Your task to perform on an android device: Open location settings Image 0: 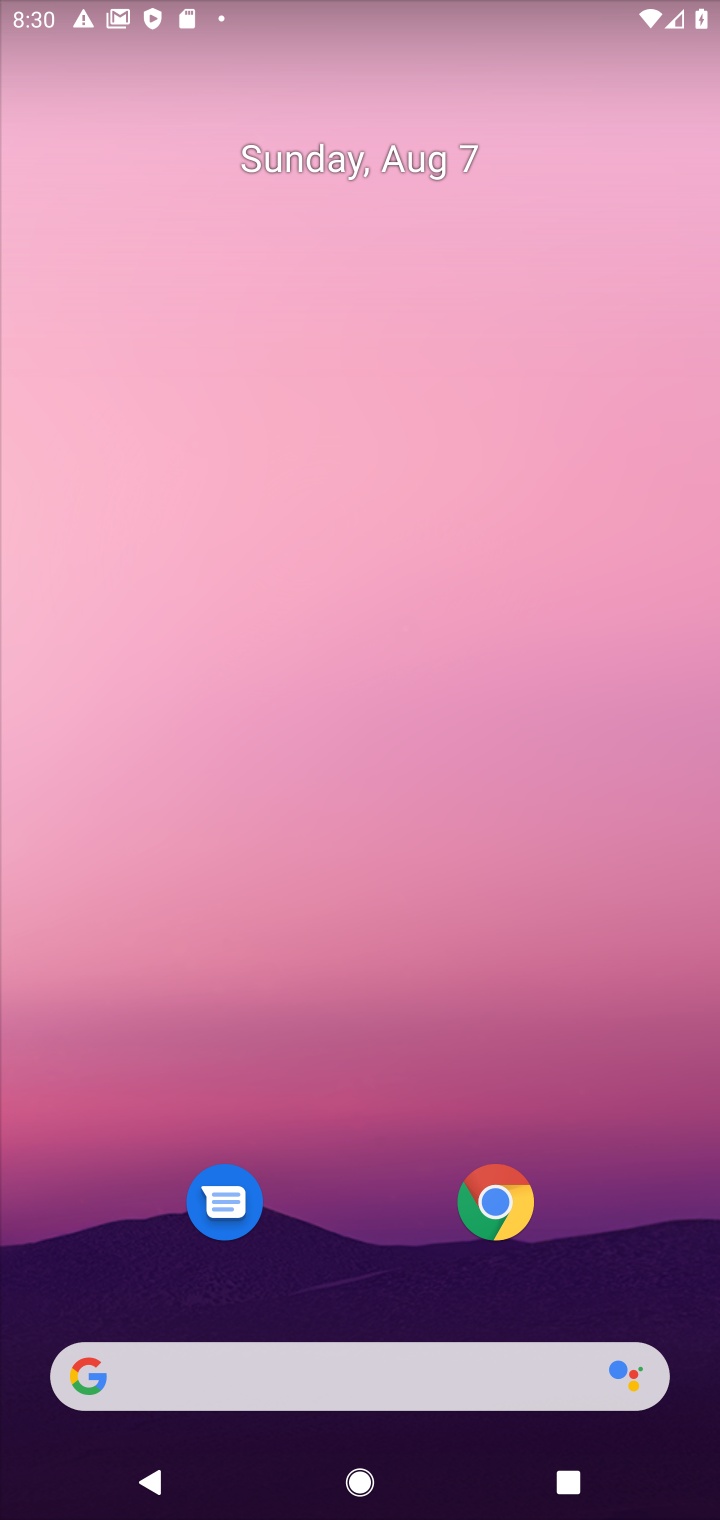
Step 0: press home button
Your task to perform on an android device: Open location settings Image 1: 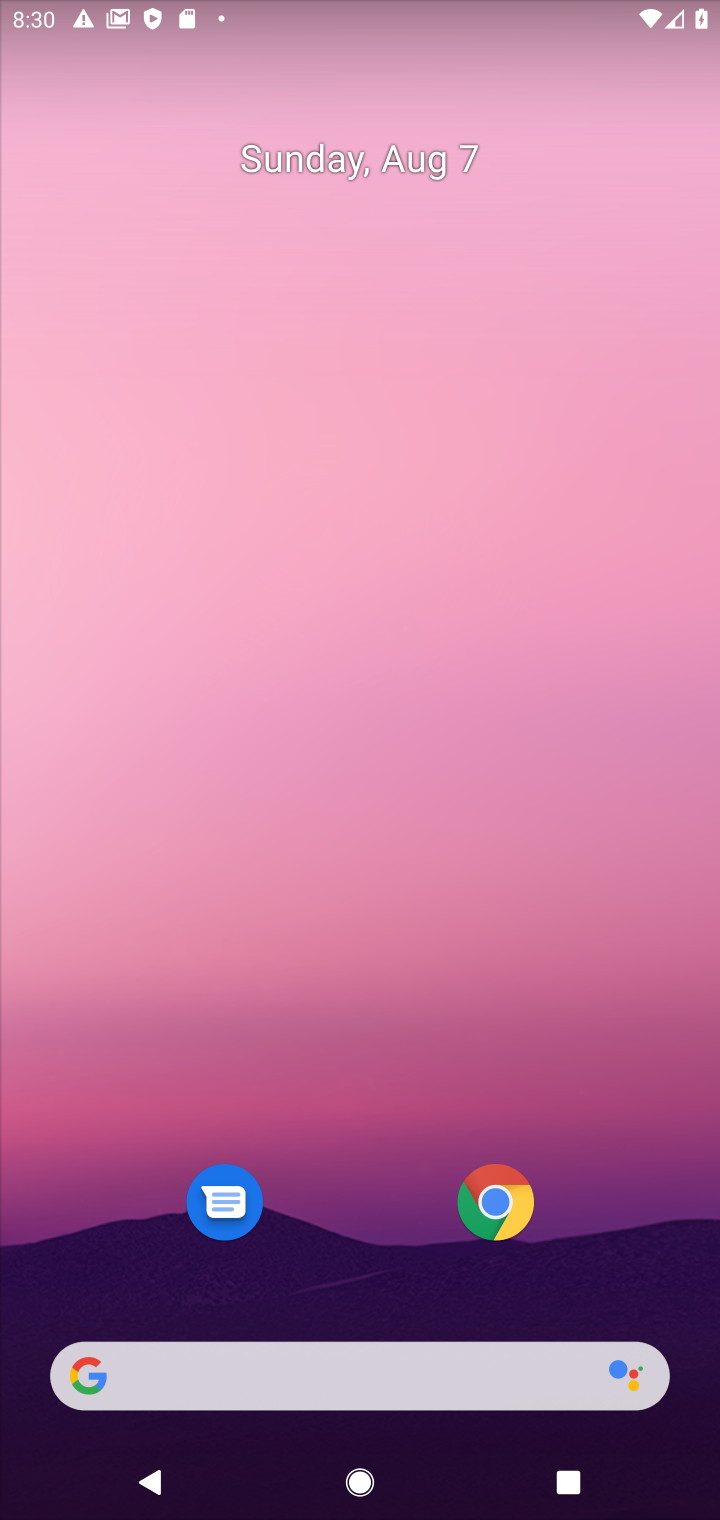
Step 1: drag from (377, 1167) to (377, 113)
Your task to perform on an android device: Open location settings Image 2: 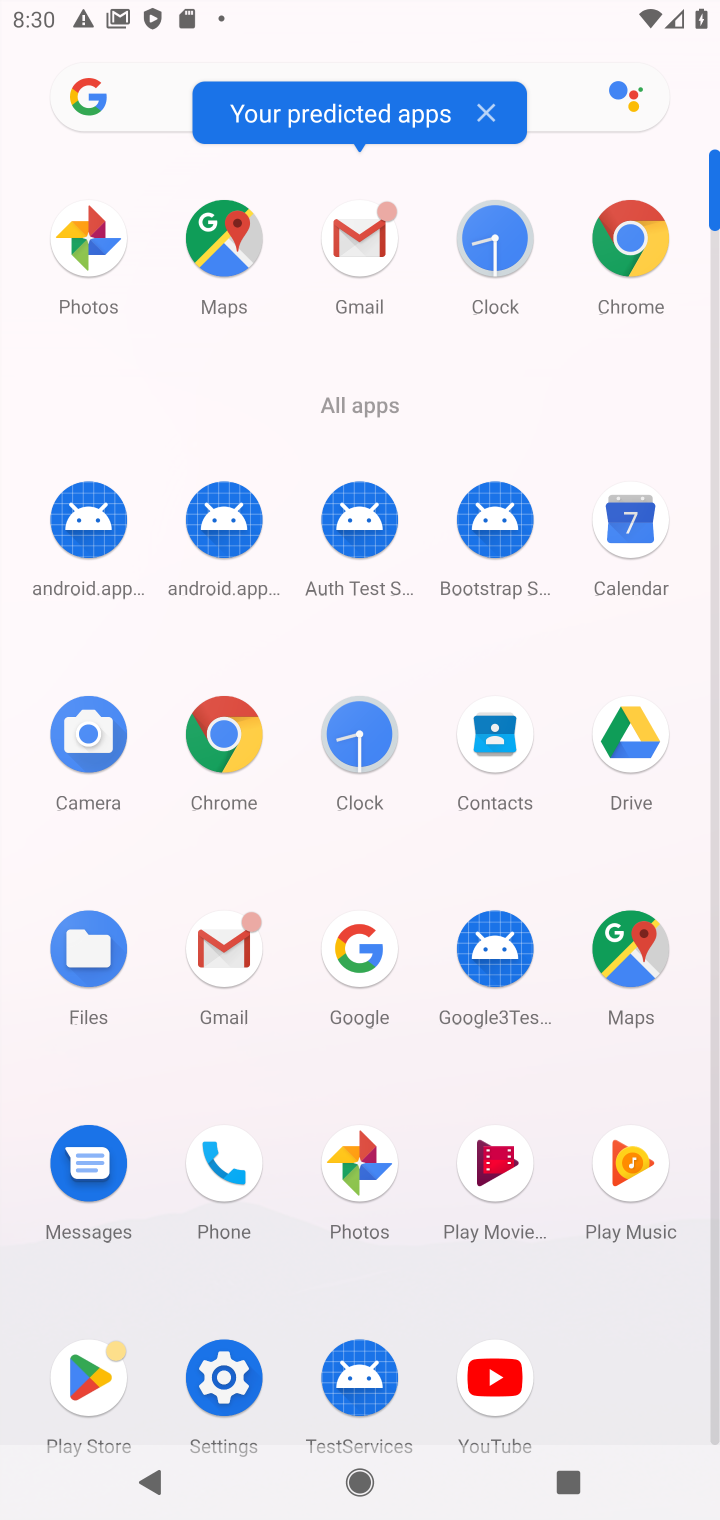
Step 2: click (223, 1382)
Your task to perform on an android device: Open location settings Image 3: 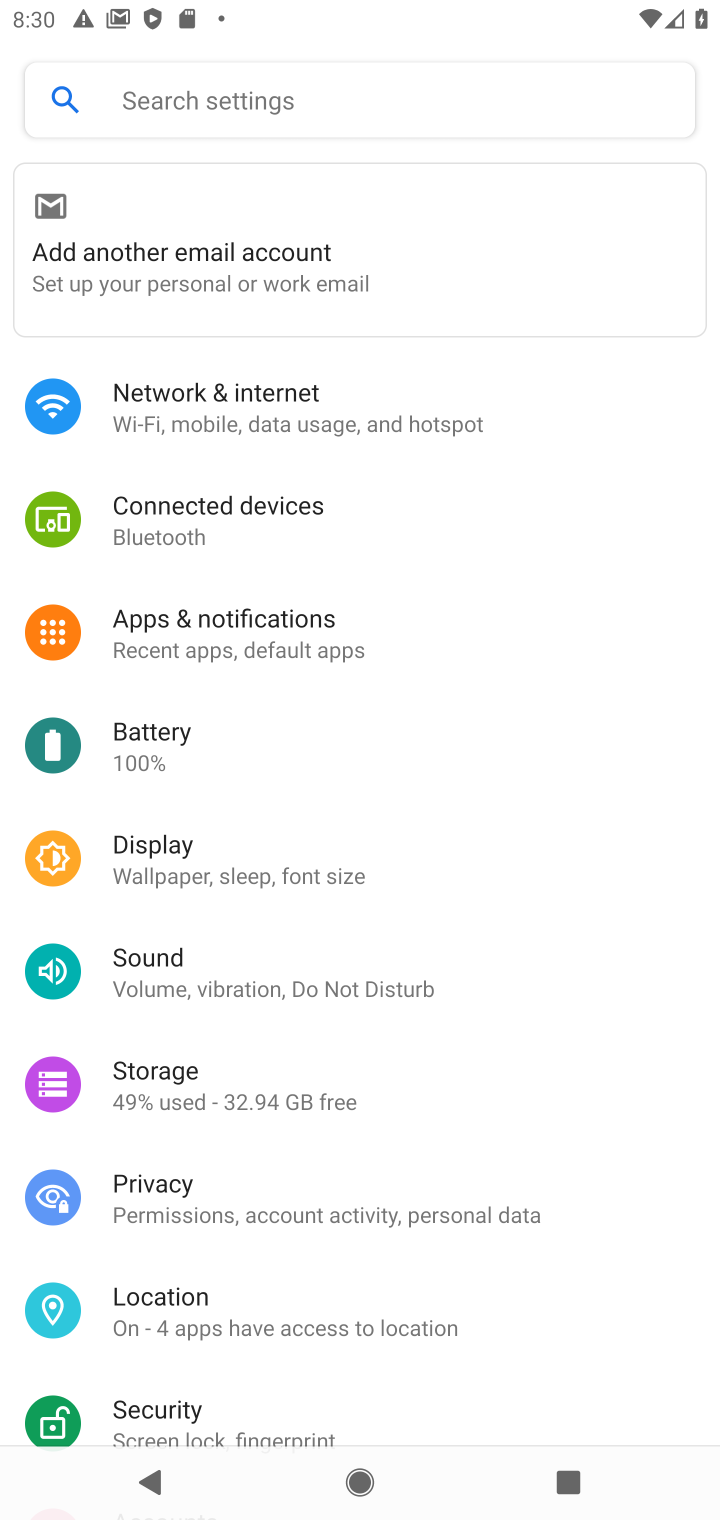
Step 3: click (250, 1302)
Your task to perform on an android device: Open location settings Image 4: 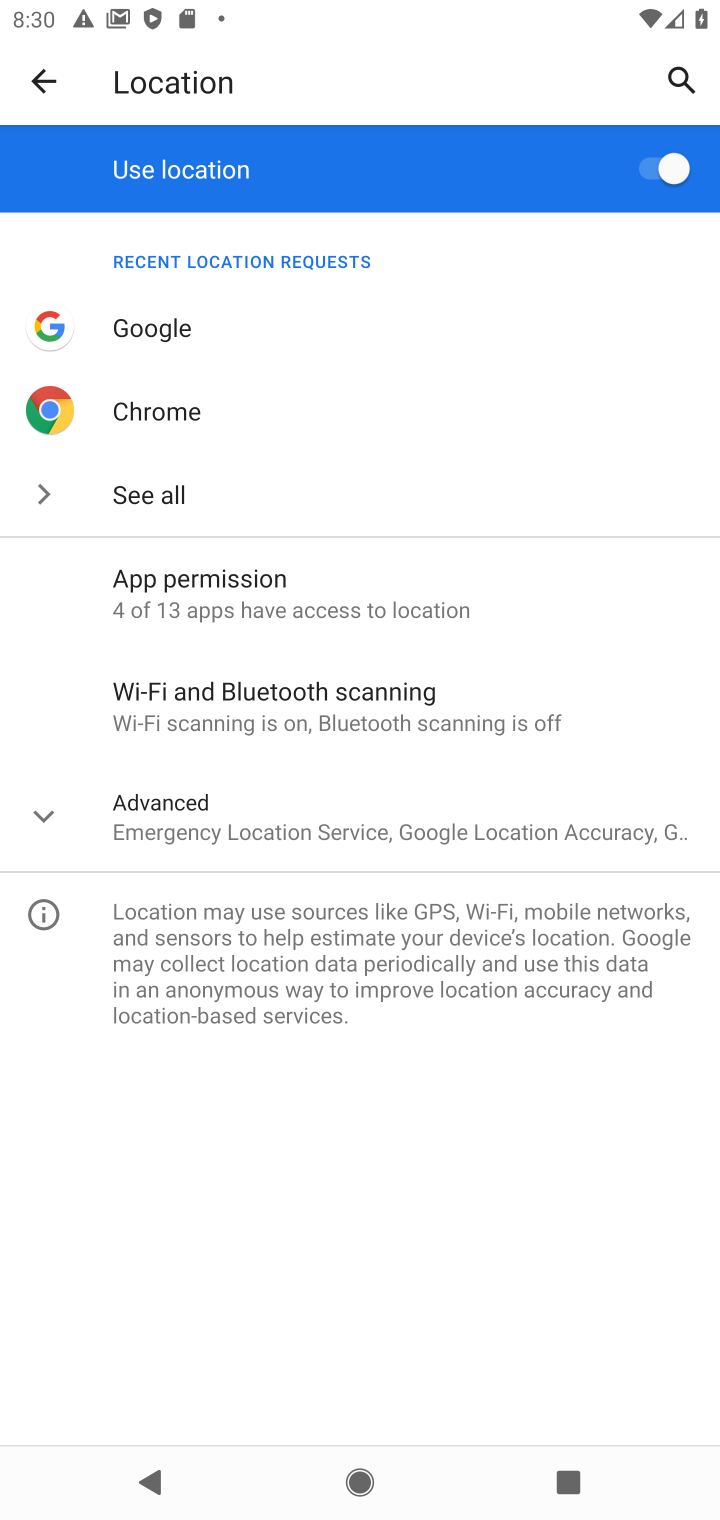
Step 4: task complete